Your task to perform on an android device: set the timer Image 0: 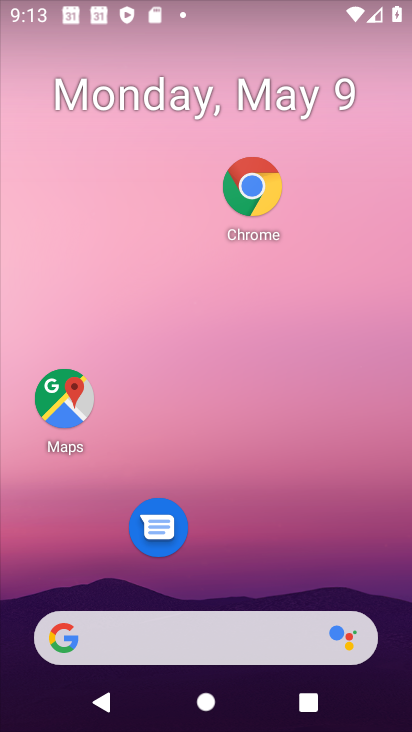
Step 0: drag from (218, 573) to (244, 13)
Your task to perform on an android device: set the timer Image 1: 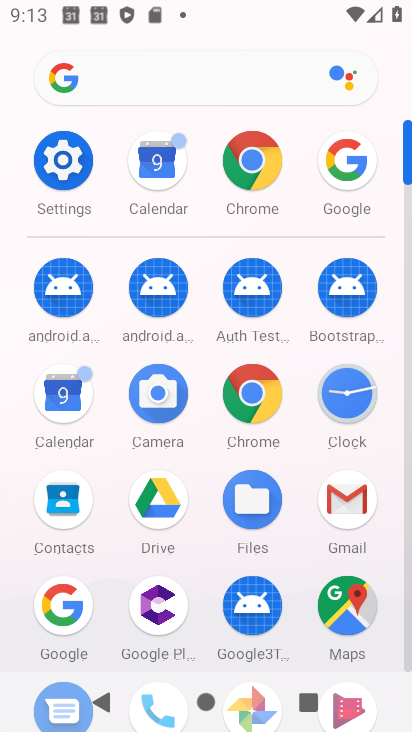
Step 1: click (344, 388)
Your task to perform on an android device: set the timer Image 2: 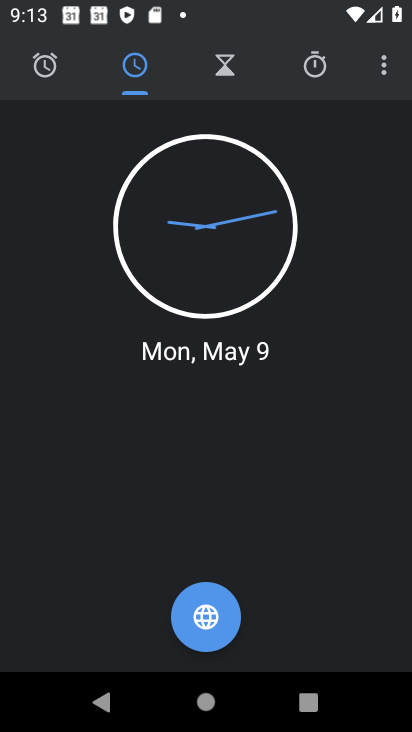
Step 2: click (381, 64)
Your task to perform on an android device: set the timer Image 3: 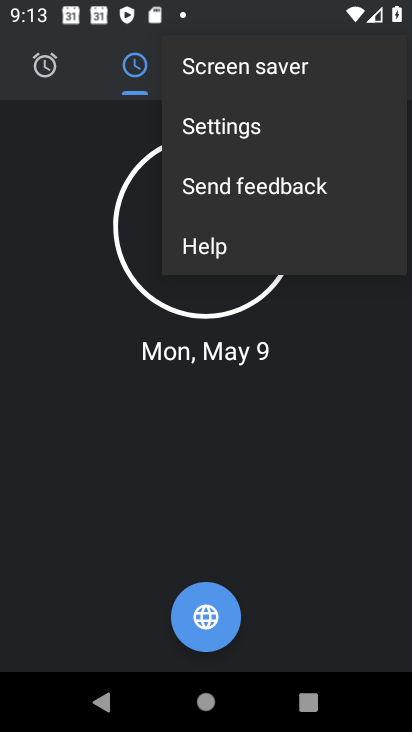
Step 3: click (277, 123)
Your task to perform on an android device: set the timer Image 4: 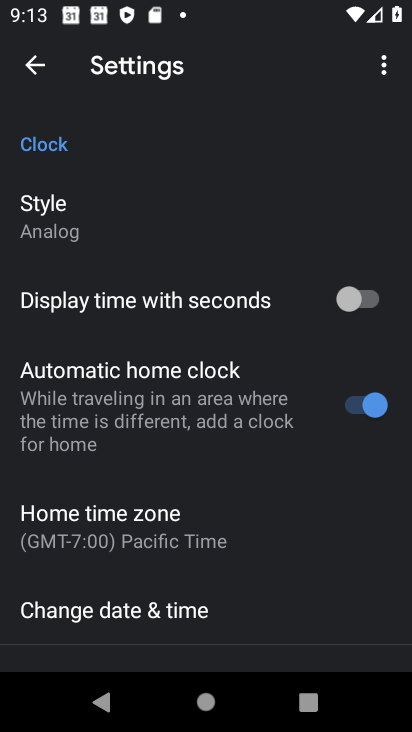
Step 4: click (47, 67)
Your task to perform on an android device: set the timer Image 5: 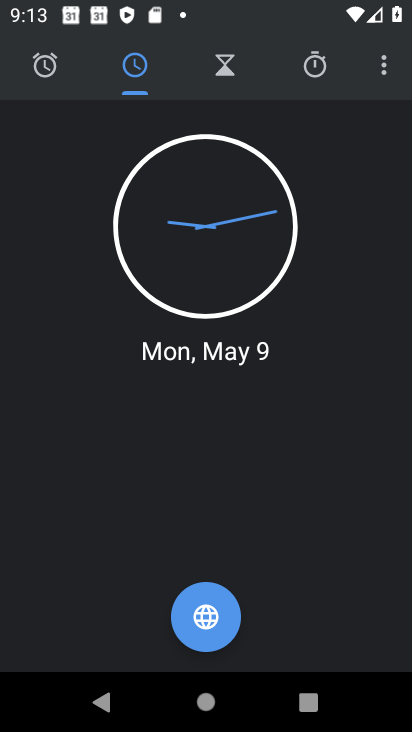
Step 5: click (217, 73)
Your task to perform on an android device: set the timer Image 6: 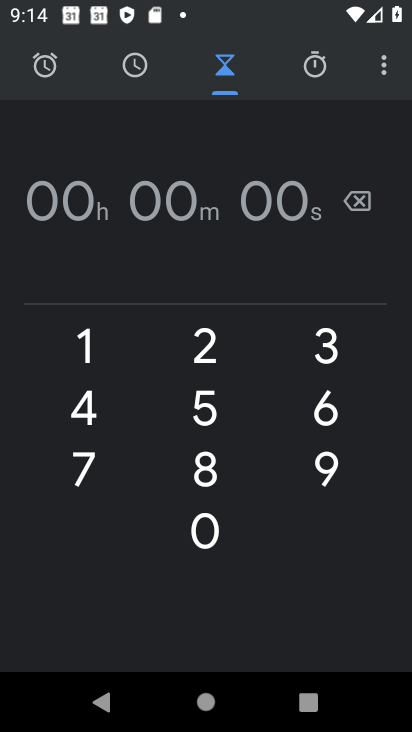
Step 6: click (216, 342)
Your task to perform on an android device: set the timer Image 7: 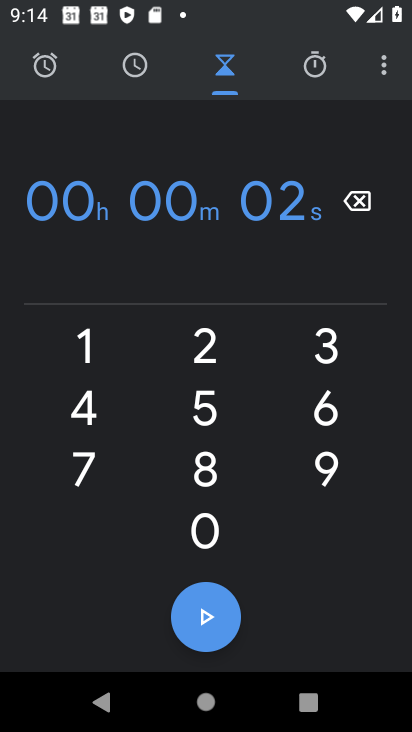
Step 7: click (210, 534)
Your task to perform on an android device: set the timer Image 8: 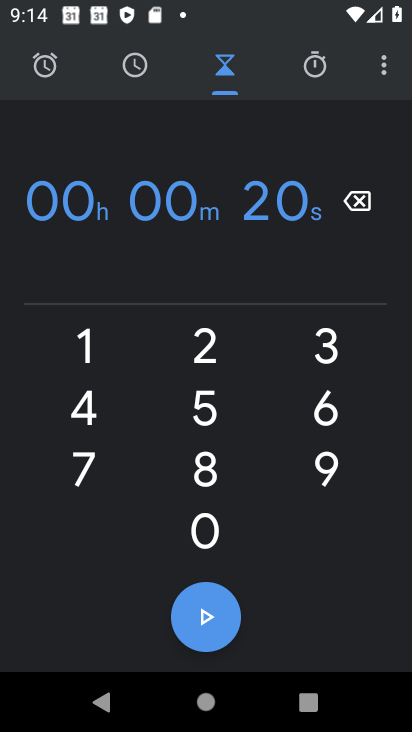
Step 8: click (210, 534)
Your task to perform on an android device: set the timer Image 9: 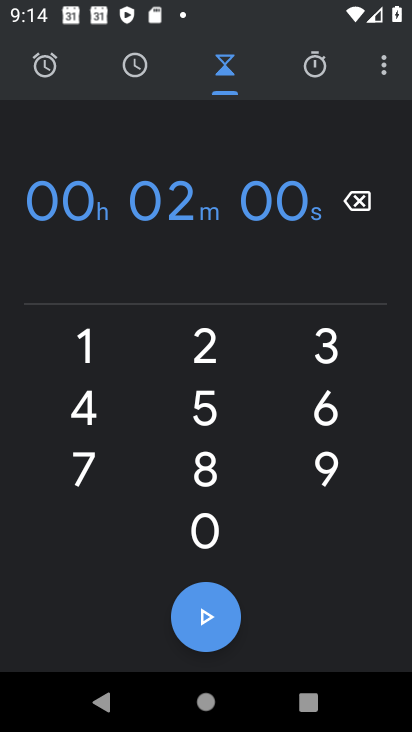
Step 9: click (210, 534)
Your task to perform on an android device: set the timer Image 10: 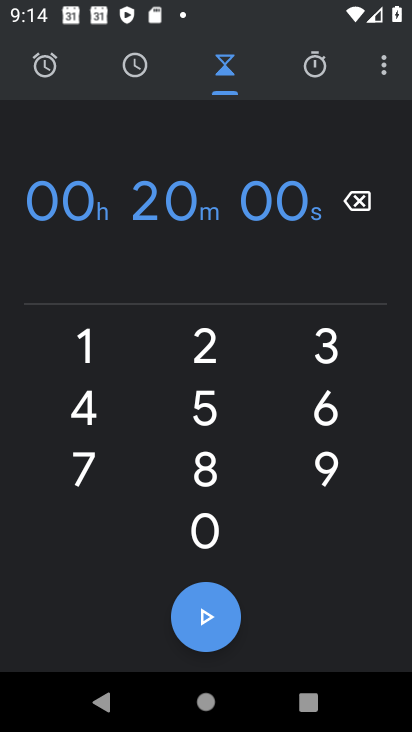
Step 10: click (206, 616)
Your task to perform on an android device: set the timer Image 11: 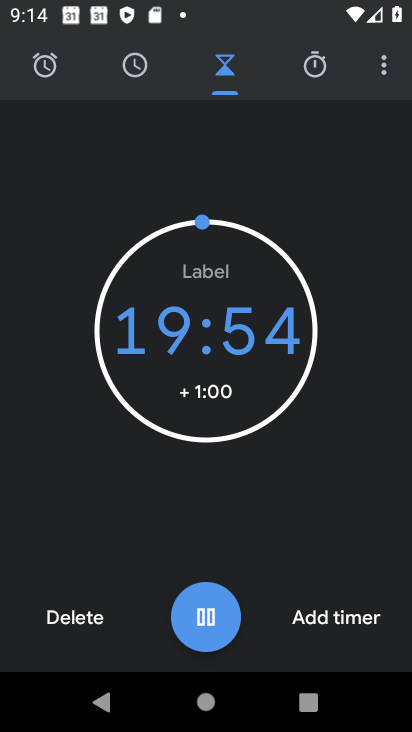
Step 11: task complete